Your task to perform on an android device: toggle data saver in the chrome app Image 0: 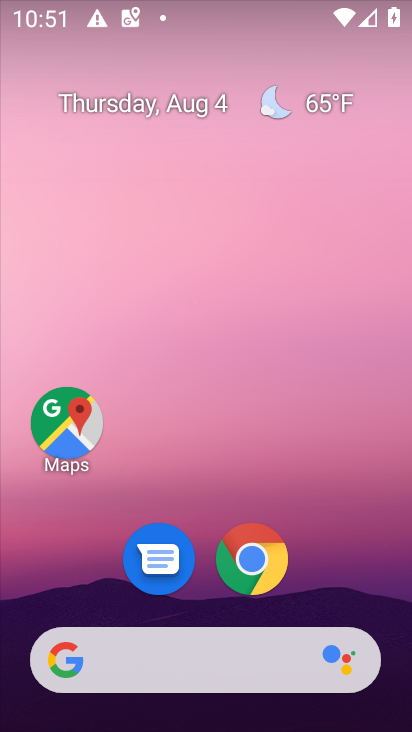
Step 0: click (280, 550)
Your task to perform on an android device: toggle data saver in the chrome app Image 1: 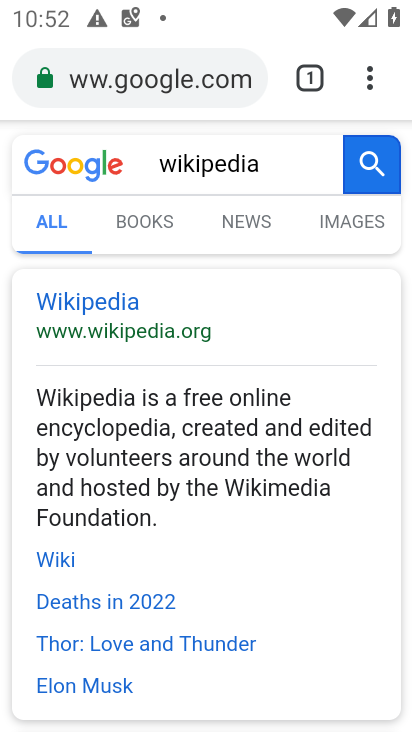
Step 1: drag from (369, 74) to (100, 601)
Your task to perform on an android device: toggle data saver in the chrome app Image 2: 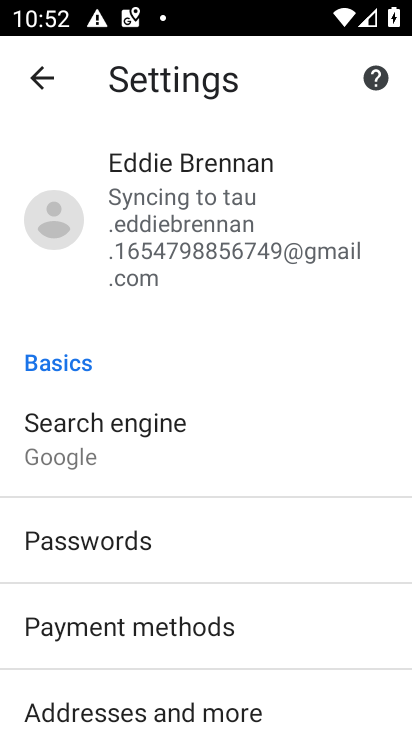
Step 2: drag from (184, 641) to (127, 214)
Your task to perform on an android device: toggle data saver in the chrome app Image 3: 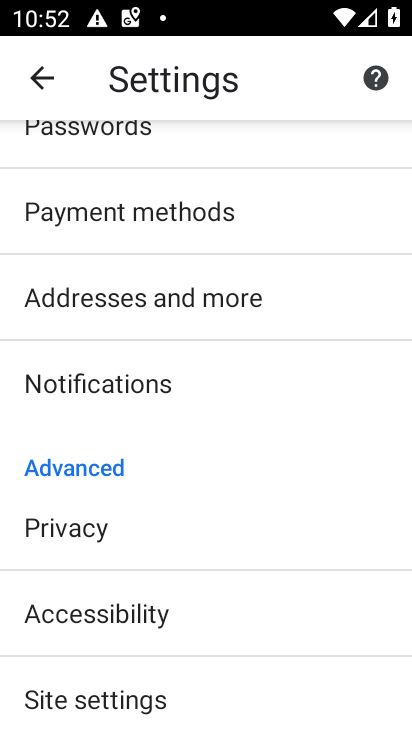
Step 3: drag from (102, 691) to (104, 208)
Your task to perform on an android device: toggle data saver in the chrome app Image 4: 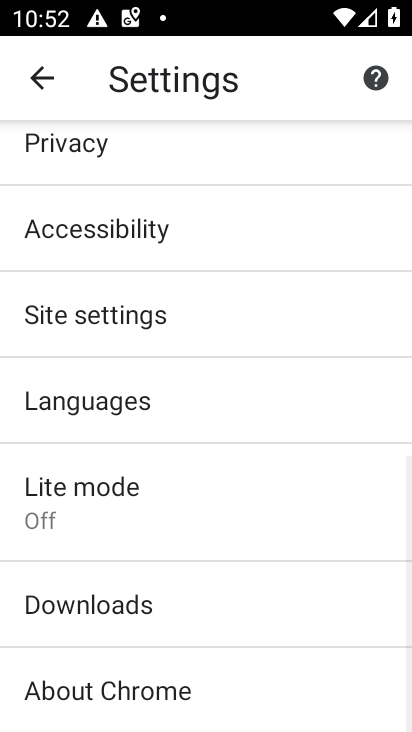
Step 4: click (110, 477)
Your task to perform on an android device: toggle data saver in the chrome app Image 5: 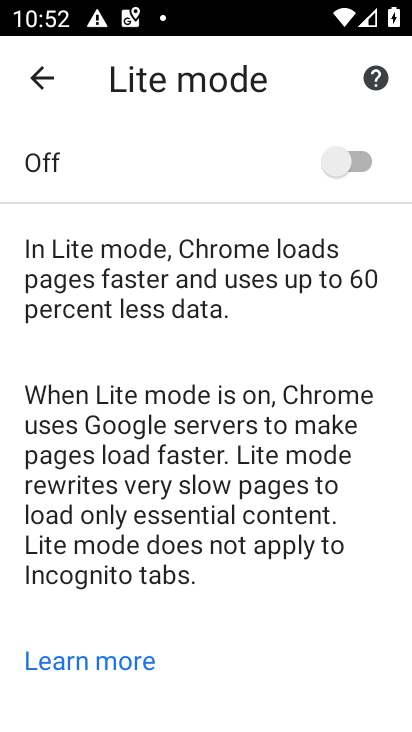
Step 5: click (355, 157)
Your task to perform on an android device: toggle data saver in the chrome app Image 6: 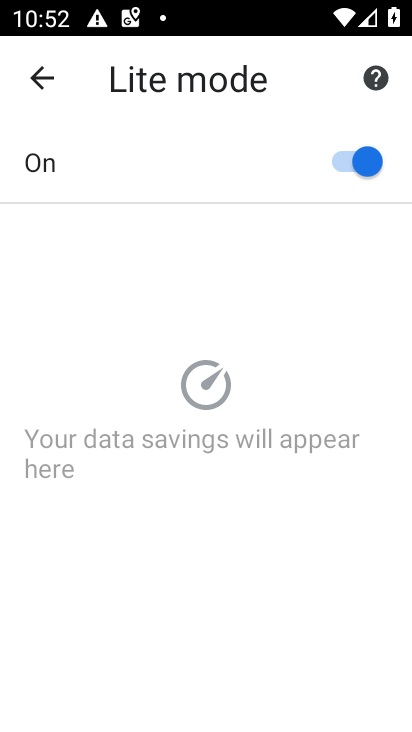
Step 6: task complete